Your task to perform on an android device: Find coffee shops on Maps Image 0: 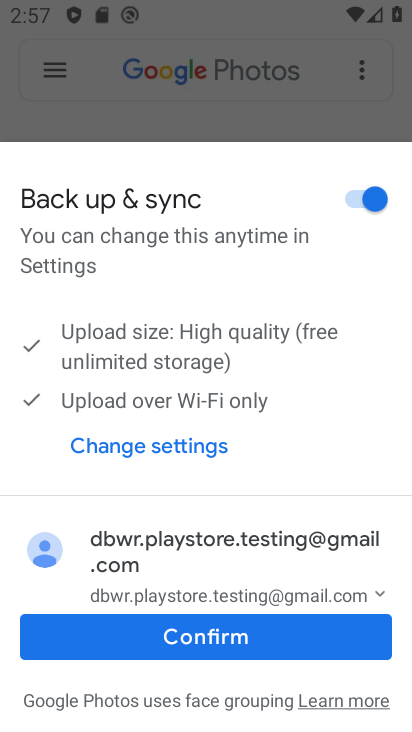
Step 0: press back button
Your task to perform on an android device: Find coffee shops on Maps Image 1: 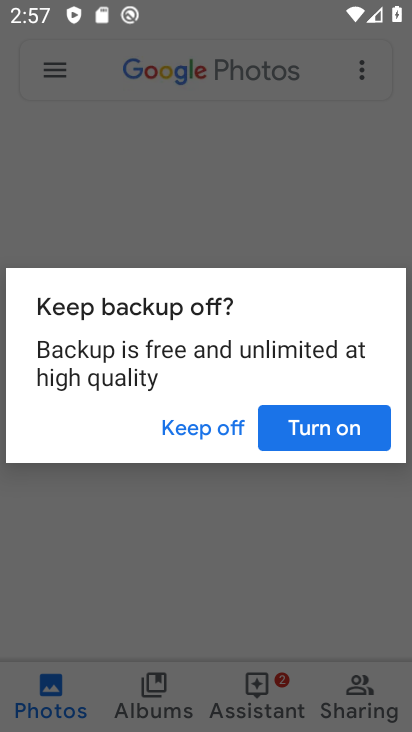
Step 1: press home button
Your task to perform on an android device: Find coffee shops on Maps Image 2: 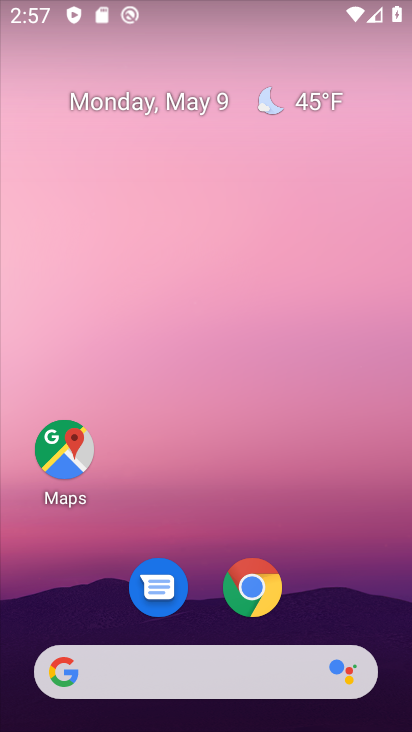
Step 2: click (76, 468)
Your task to perform on an android device: Find coffee shops on Maps Image 3: 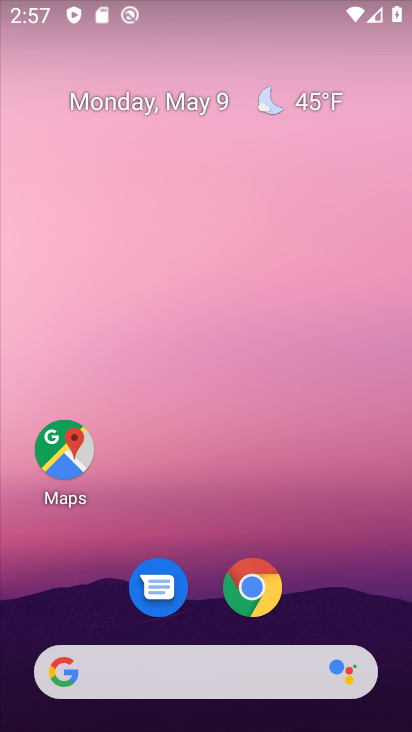
Step 3: click (76, 468)
Your task to perform on an android device: Find coffee shops on Maps Image 4: 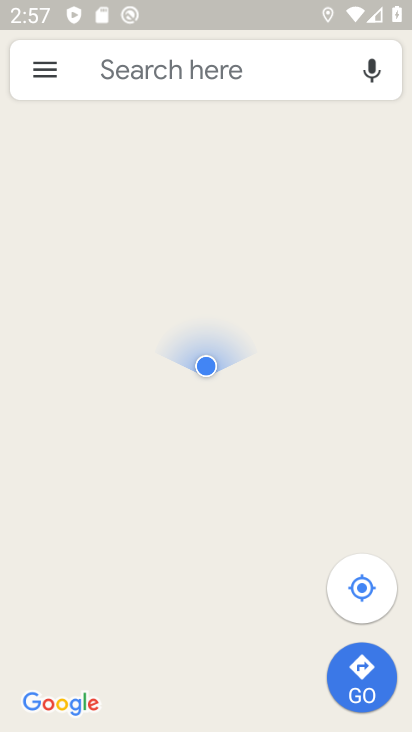
Step 4: click (208, 61)
Your task to perform on an android device: Find coffee shops on Maps Image 5: 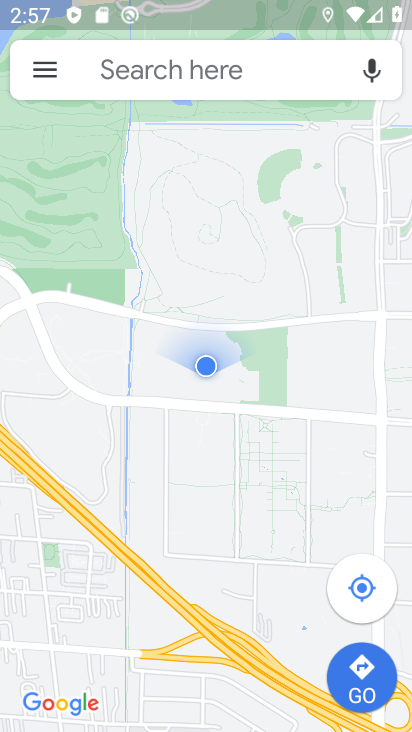
Step 5: click (208, 61)
Your task to perform on an android device: Find coffee shops on Maps Image 6: 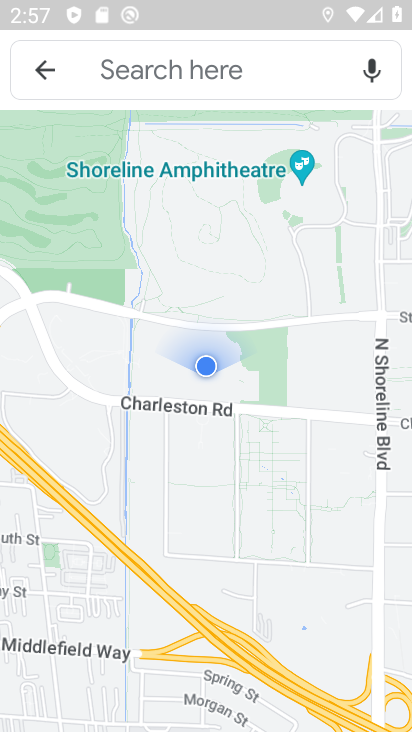
Step 6: click (208, 61)
Your task to perform on an android device: Find coffee shops on Maps Image 7: 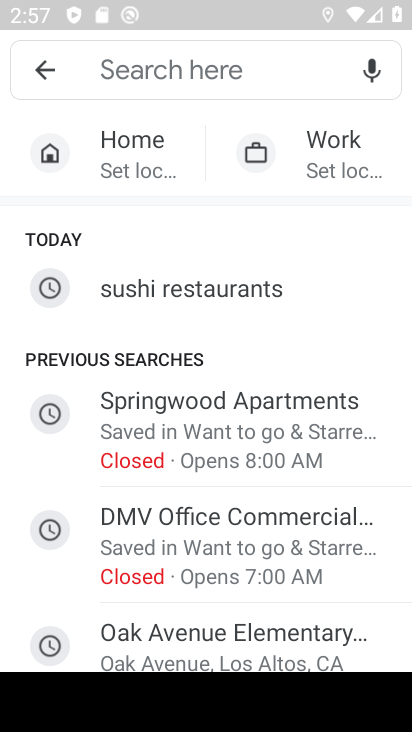
Step 7: type "coffee shops"
Your task to perform on an android device: Find coffee shops on Maps Image 8: 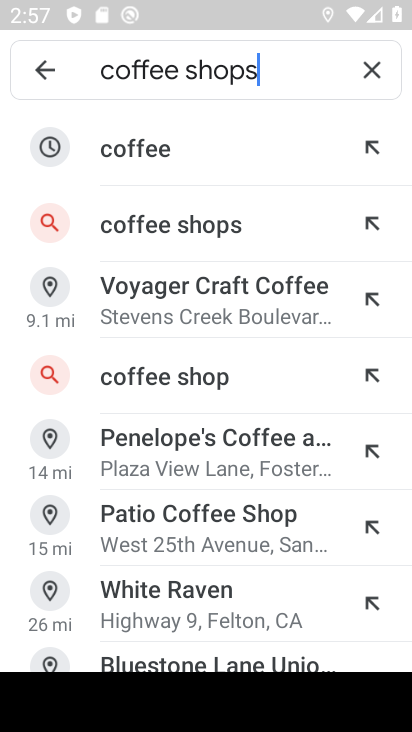
Step 8: click (265, 221)
Your task to perform on an android device: Find coffee shops on Maps Image 9: 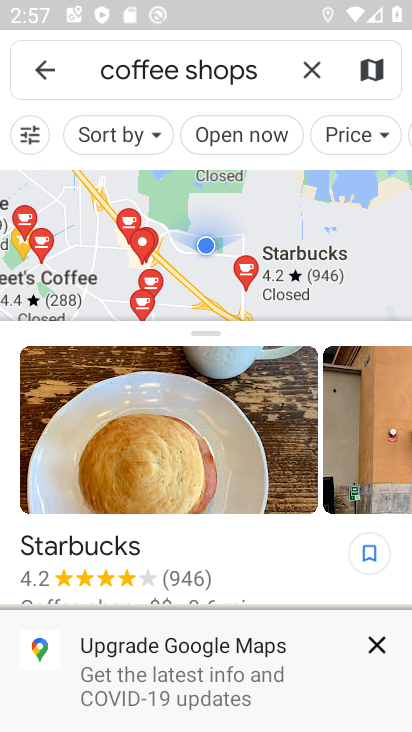
Step 9: task complete